Your task to perform on an android device: What's on my calendar today? Image 0: 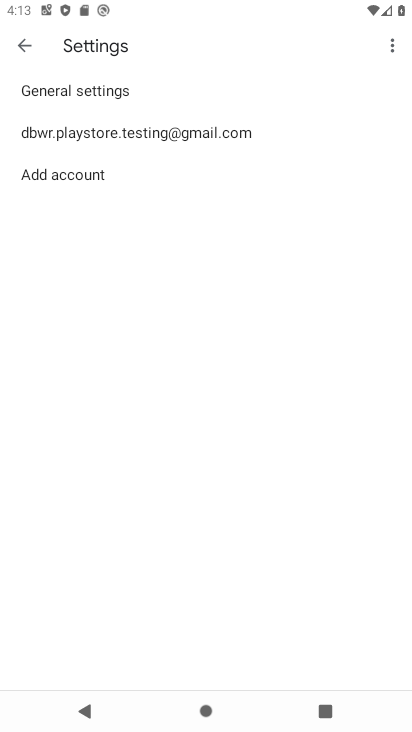
Step 0: press home button
Your task to perform on an android device: What's on my calendar today? Image 1: 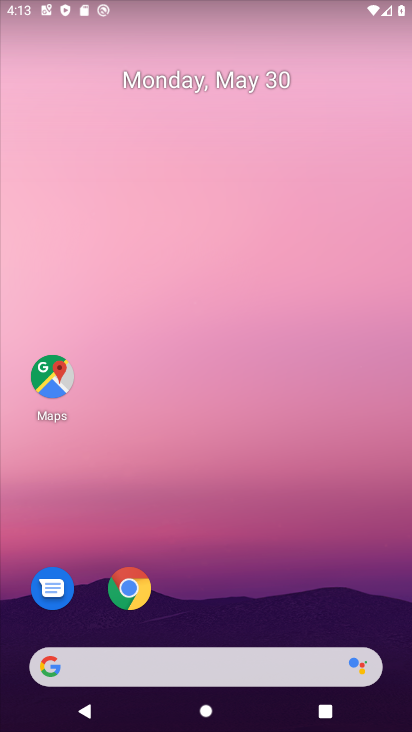
Step 1: drag from (252, 454) to (242, 18)
Your task to perform on an android device: What's on my calendar today? Image 2: 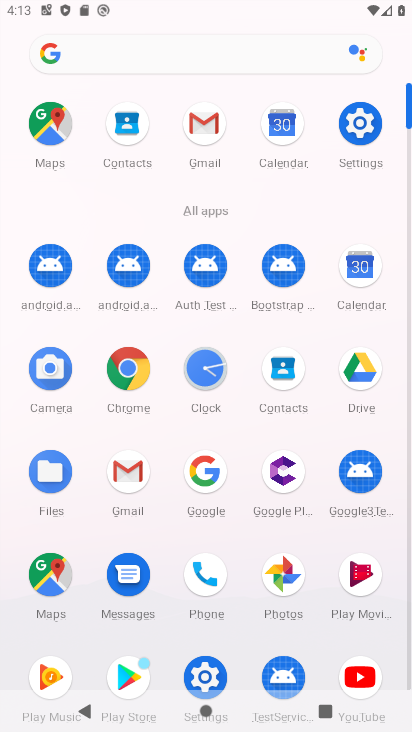
Step 2: click (274, 125)
Your task to perform on an android device: What's on my calendar today? Image 3: 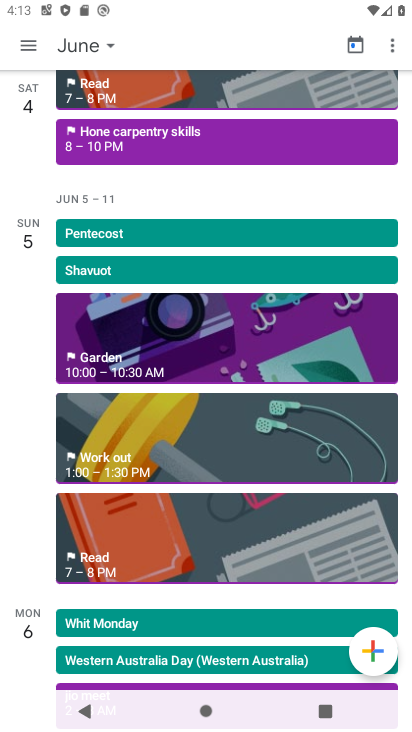
Step 3: task complete